Your task to perform on an android device: Open Maps and search for coffee Image 0: 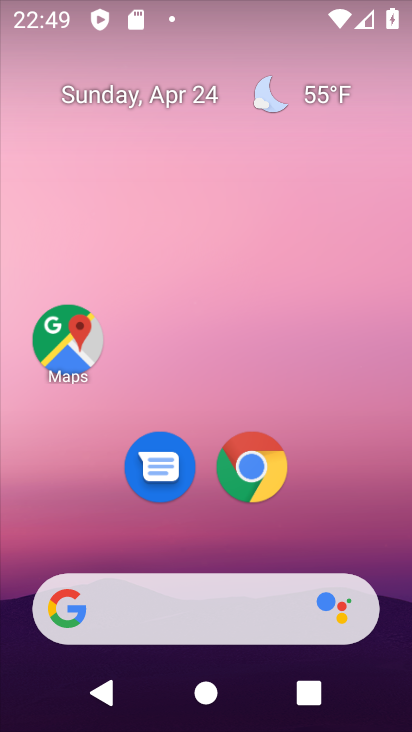
Step 0: click (67, 344)
Your task to perform on an android device: Open Maps and search for coffee Image 1: 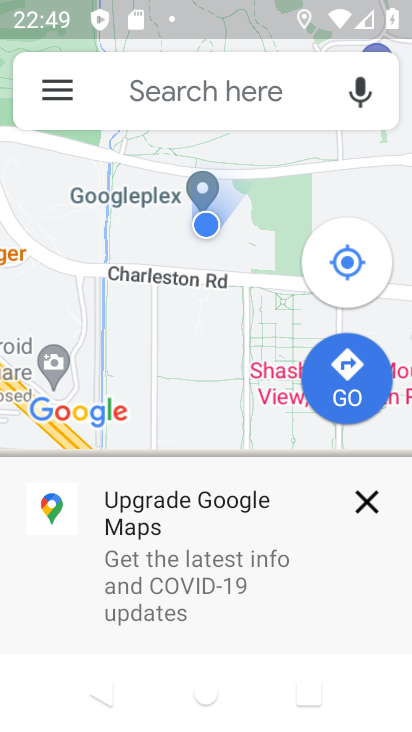
Step 1: click (185, 83)
Your task to perform on an android device: Open Maps and search for coffee Image 2: 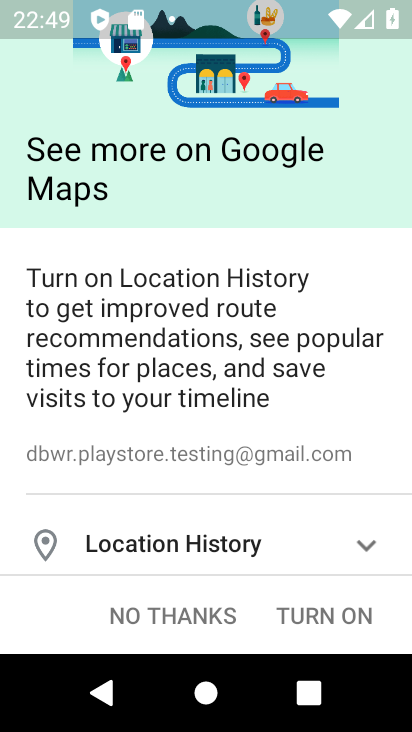
Step 2: click (207, 611)
Your task to perform on an android device: Open Maps and search for coffee Image 3: 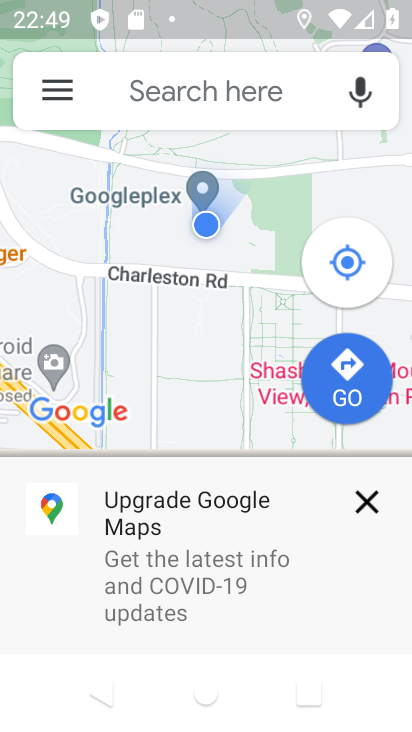
Step 3: click (216, 94)
Your task to perform on an android device: Open Maps and search for coffee Image 4: 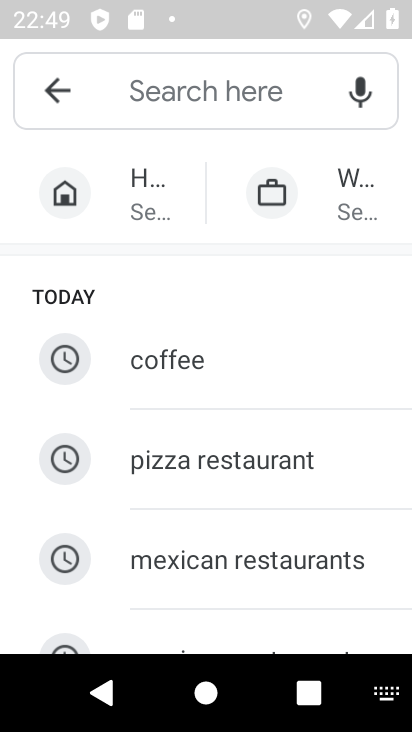
Step 4: click (144, 356)
Your task to perform on an android device: Open Maps and search for coffee Image 5: 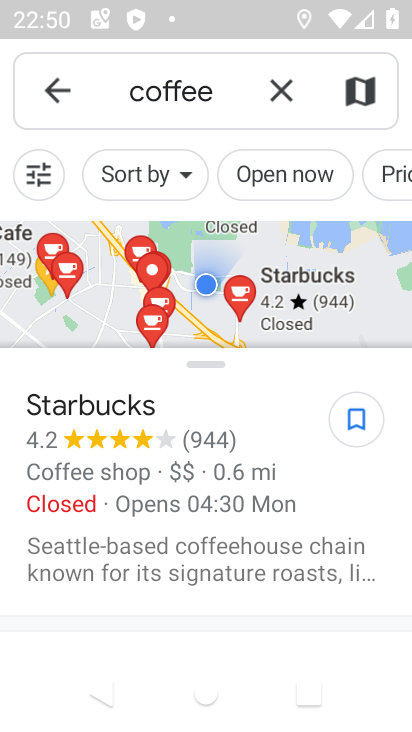
Step 5: task complete